Your task to perform on an android device: Open privacy settings Image 0: 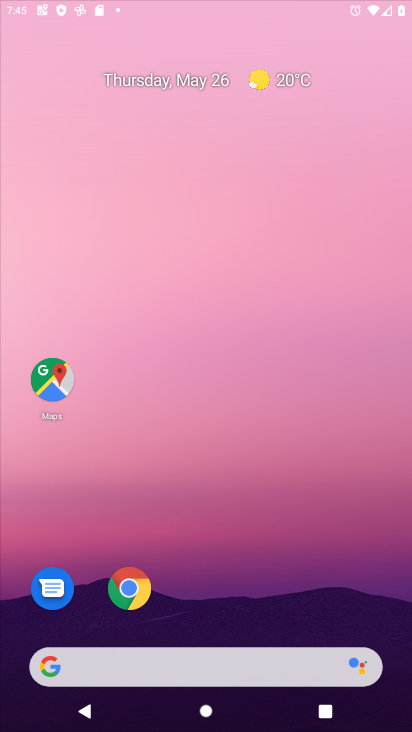
Step 0: click (208, 35)
Your task to perform on an android device: Open privacy settings Image 1: 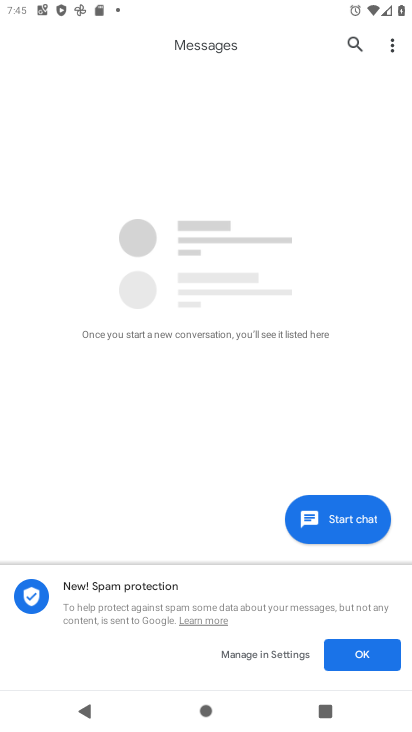
Step 1: press home button
Your task to perform on an android device: Open privacy settings Image 2: 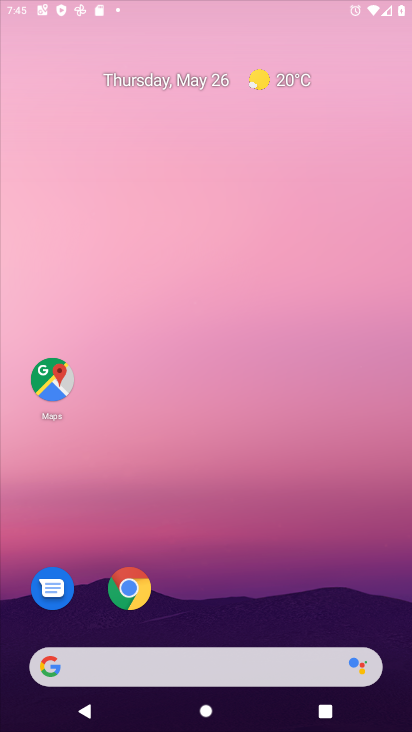
Step 2: drag from (396, 672) to (272, 93)
Your task to perform on an android device: Open privacy settings Image 3: 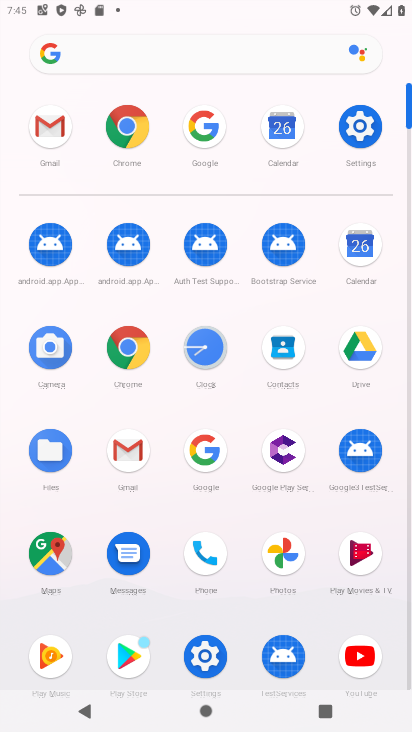
Step 3: click (201, 661)
Your task to perform on an android device: Open privacy settings Image 4: 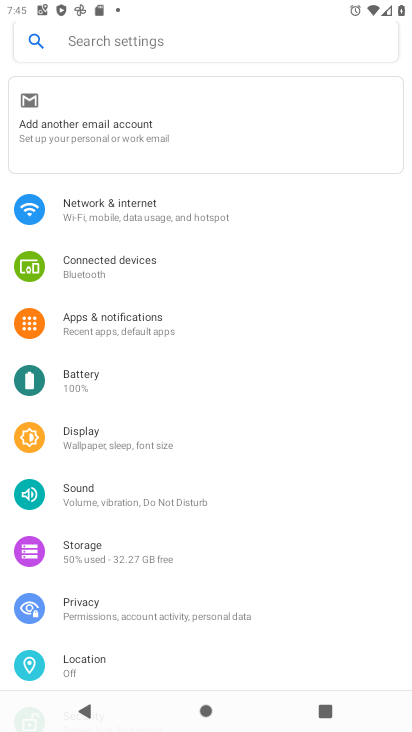
Step 4: click (176, 595)
Your task to perform on an android device: Open privacy settings Image 5: 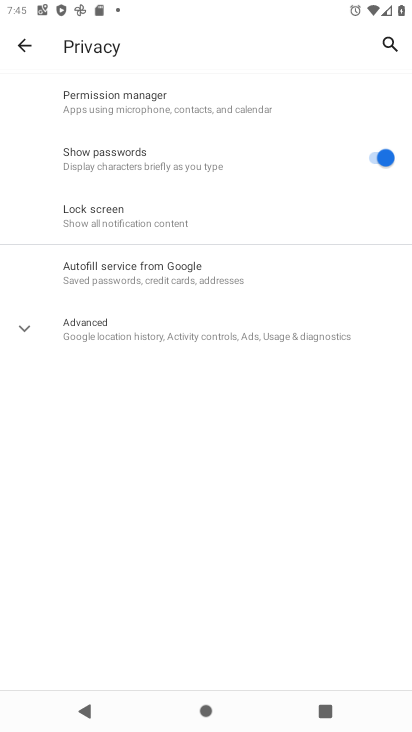
Step 5: task complete